Your task to perform on an android device: toggle priority inbox in the gmail app Image 0: 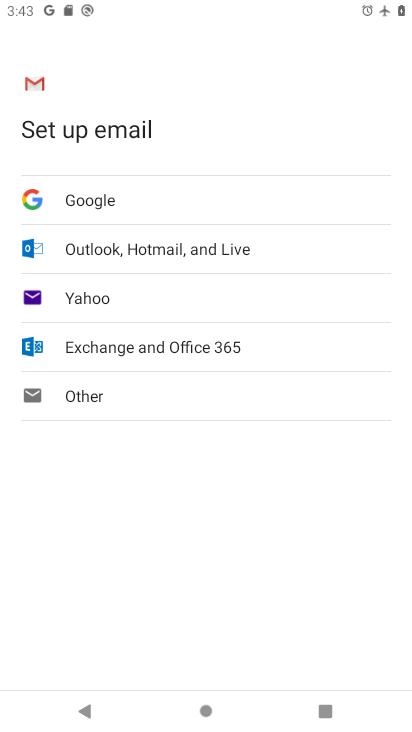
Step 0: press home button
Your task to perform on an android device: toggle priority inbox in the gmail app Image 1: 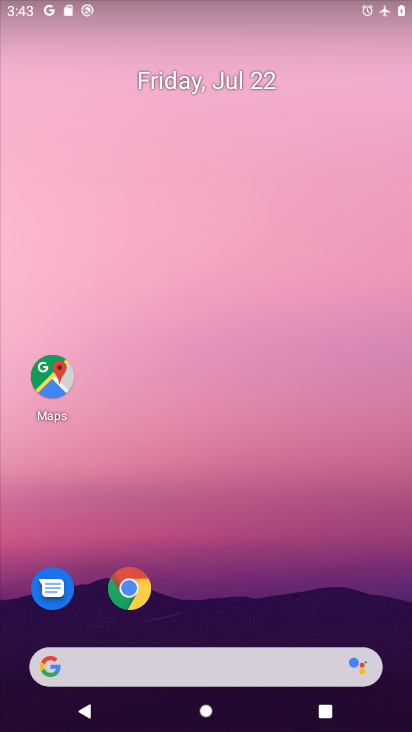
Step 1: drag from (272, 586) to (306, 147)
Your task to perform on an android device: toggle priority inbox in the gmail app Image 2: 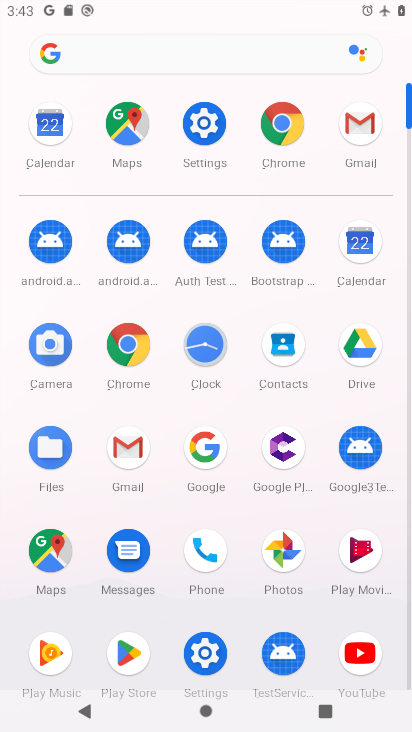
Step 2: click (129, 445)
Your task to perform on an android device: toggle priority inbox in the gmail app Image 3: 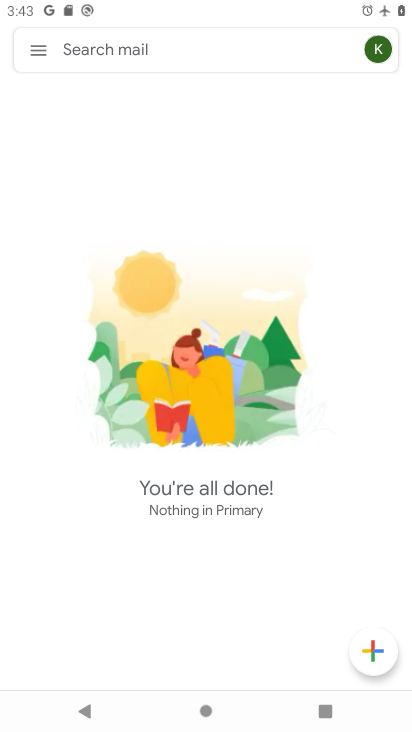
Step 3: click (33, 44)
Your task to perform on an android device: toggle priority inbox in the gmail app Image 4: 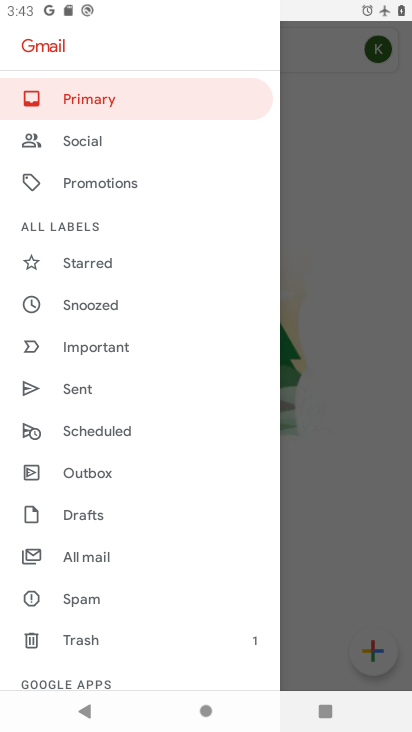
Step 4: drag from (134, 563) to (192, 305)
Your task to perform on an android device: toggle priority inbox in the gmail app Image 5: 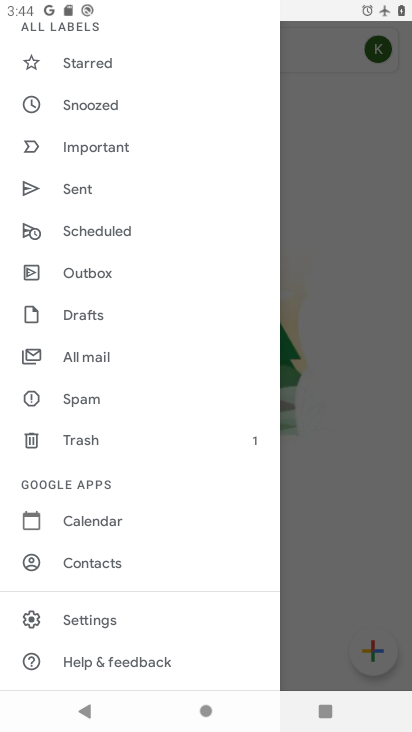
Step 5: click (102, 612)
Your task to perform on an android device: toggle priority inbox in the gmail app Image 6: 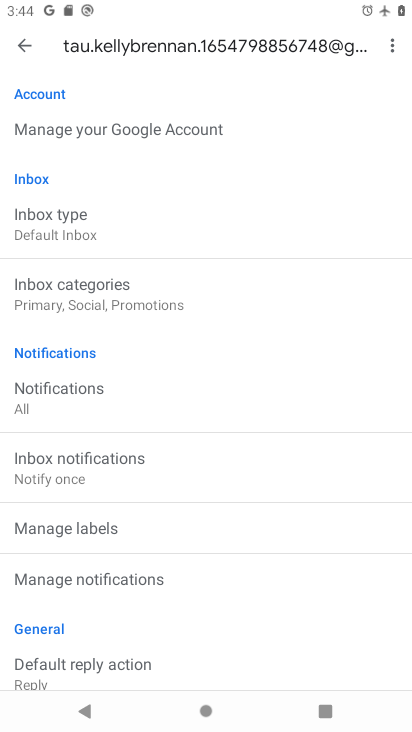
Step 6: click (49, 218)
Your task to perform on an android device: toggle priority inbox in the gmail app Image 7: 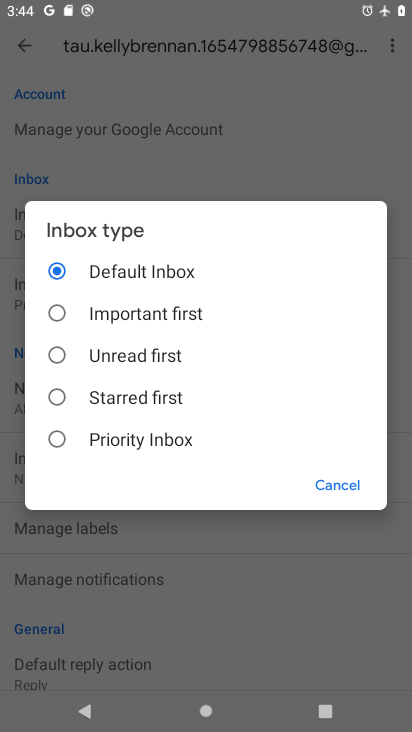
Step 7: click (118, 443)
Your task to perform on an android device: toggle priority inbox in the gmail app Image 8: 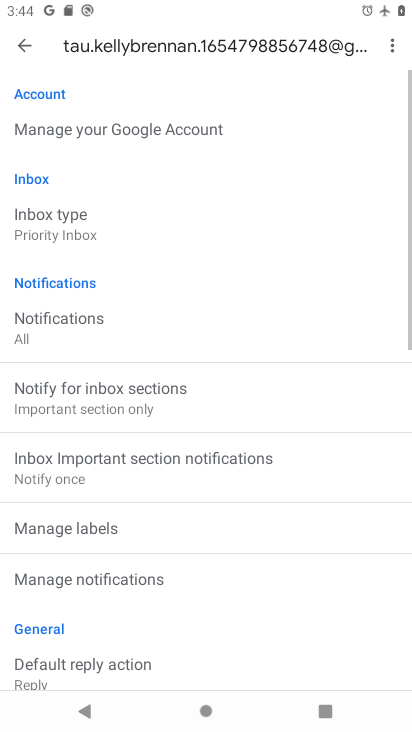
Step 8: task complete